Your task to perform on an android device: open app "Microsoft Authenticator" (install if not already installed) Image 0: 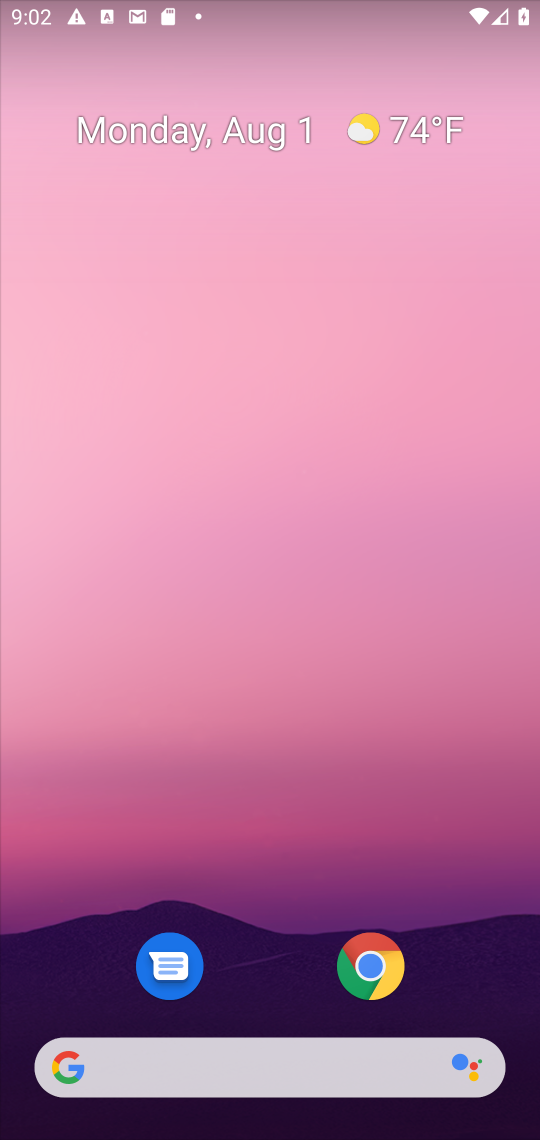
Step 0: drag from (514, 1049) to (508, 89)
Your task to perform on an android device: open app "Microsoft Authenticator" (install if not already installed) Image 1: 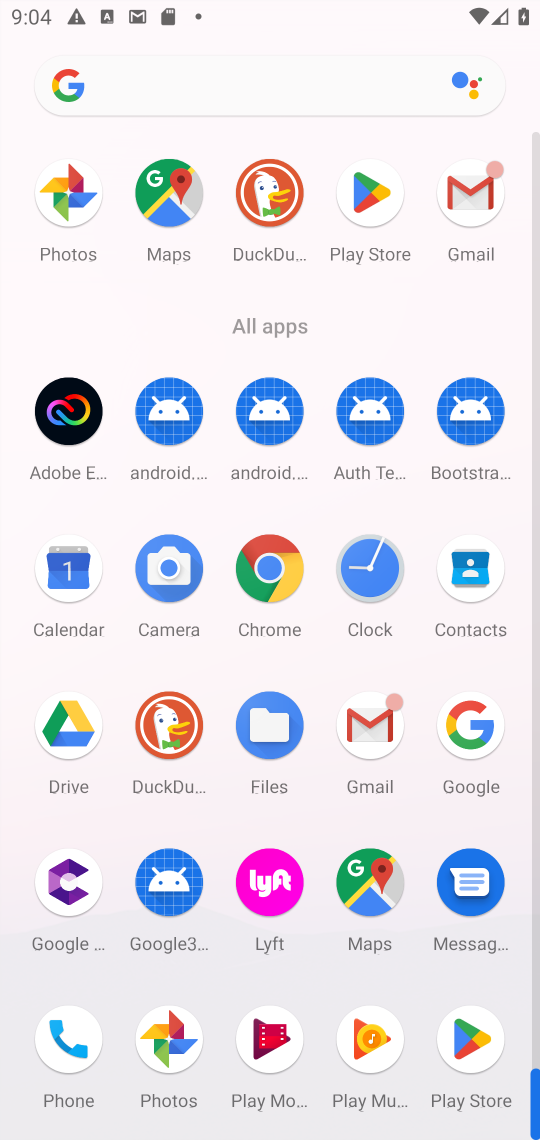
Step 1: click (466, 1047)
Your task to perform on an android device: open app "Microsoft Authenticator" (install if not already installed) Image 2: 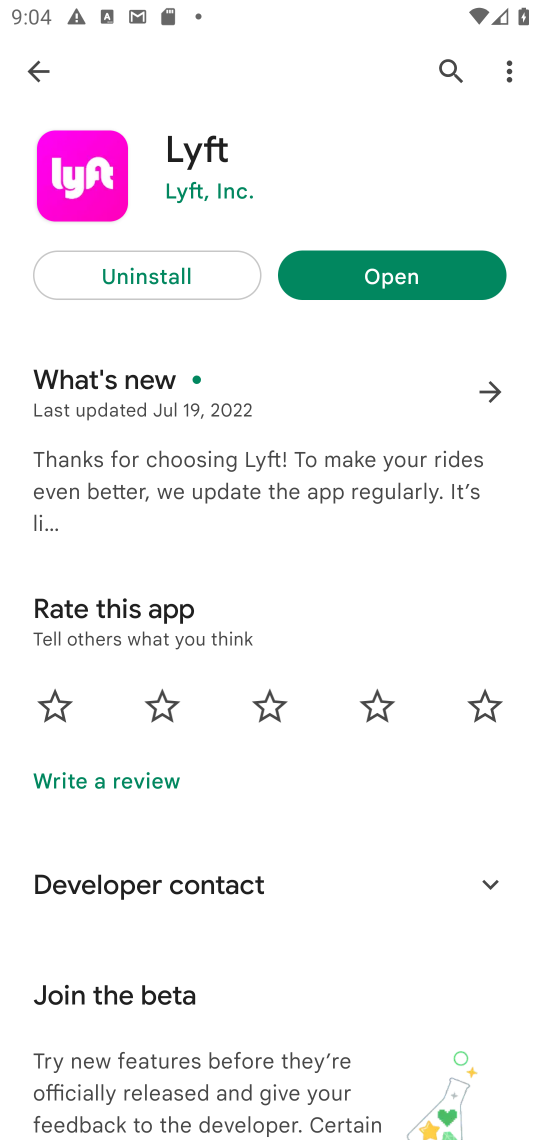
Step 2: click (444, 67)
Your task to perform on an android device: open app "Microsoft Authenticator" (install if not already installed) Image 3: 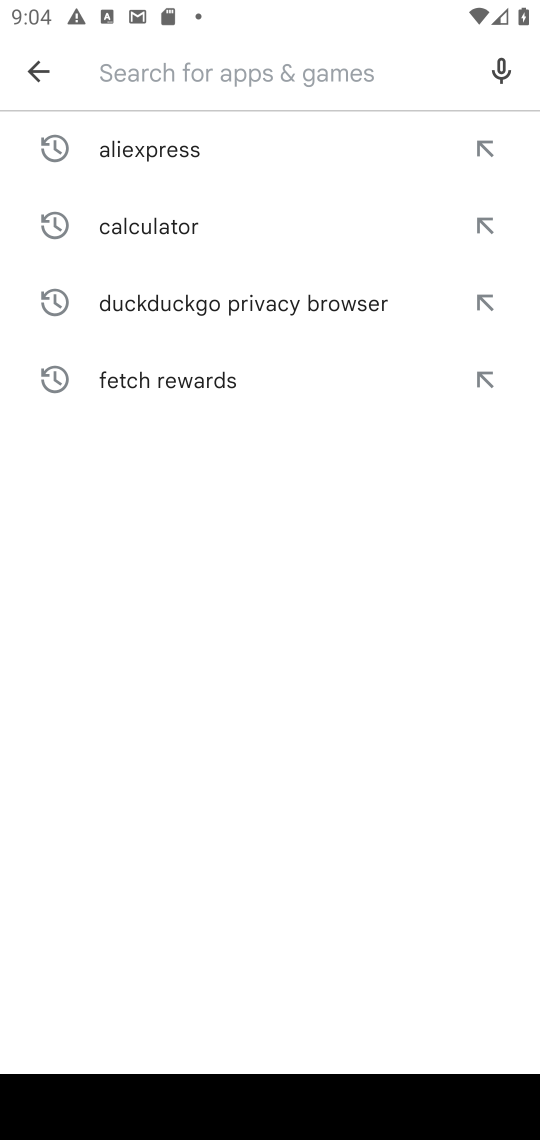
Step 3: click (309, 73)
Your task to perform on an android device: open app "Microsoft Authenticator" (install if not already installed) Image 4: 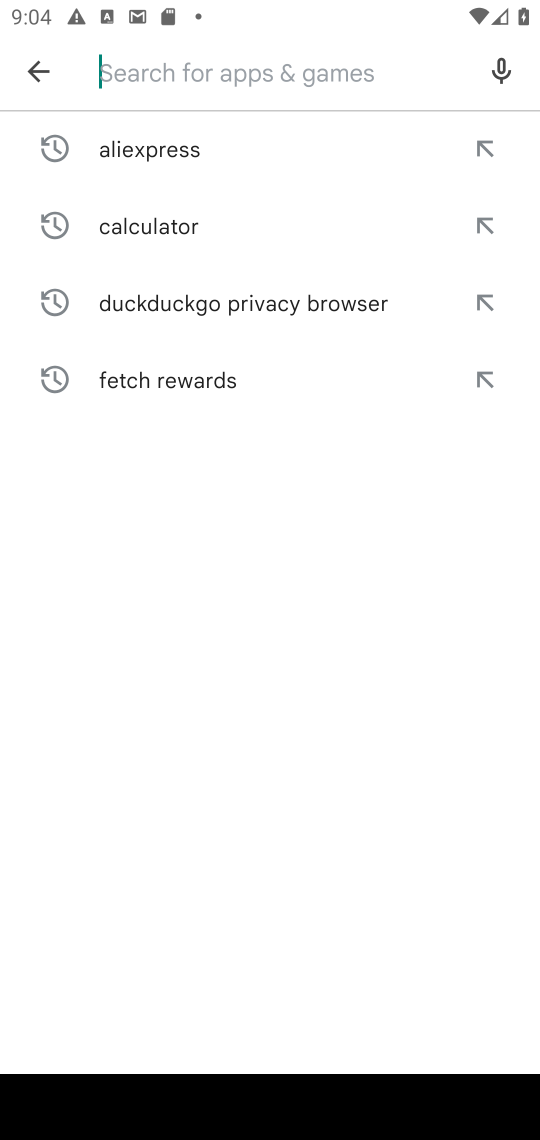
Step 4: type "Microsoft Authenticator"
Your task to perform on an android device: open app "Microsoft Authenticator" (install if not already installed) Image 5: 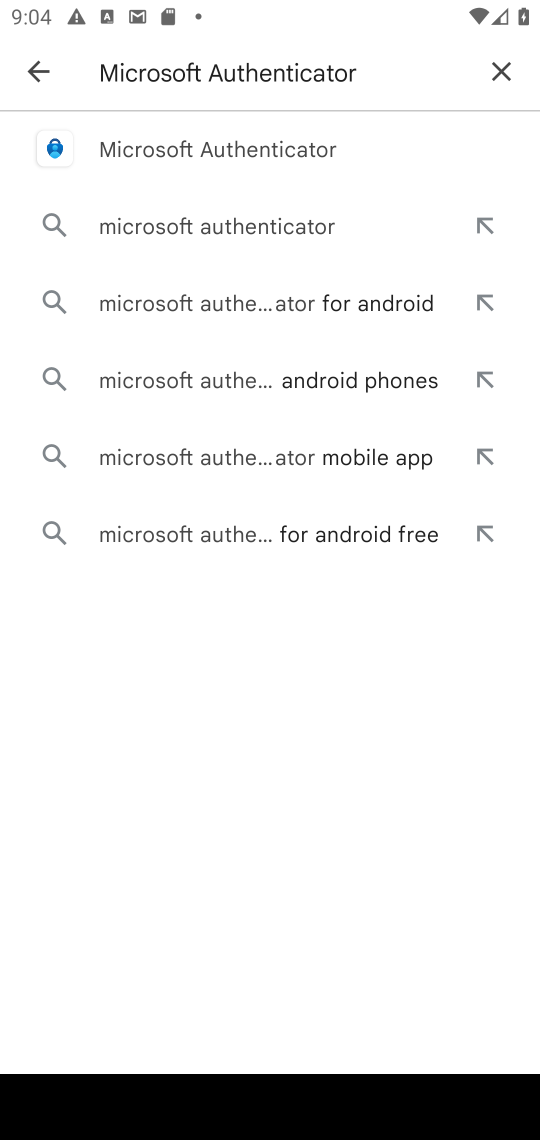
Step 5: click (194, 149)
Your task to perform on an android device: open app "Microsoft Authenticator" (install if not already installed) Image 6: 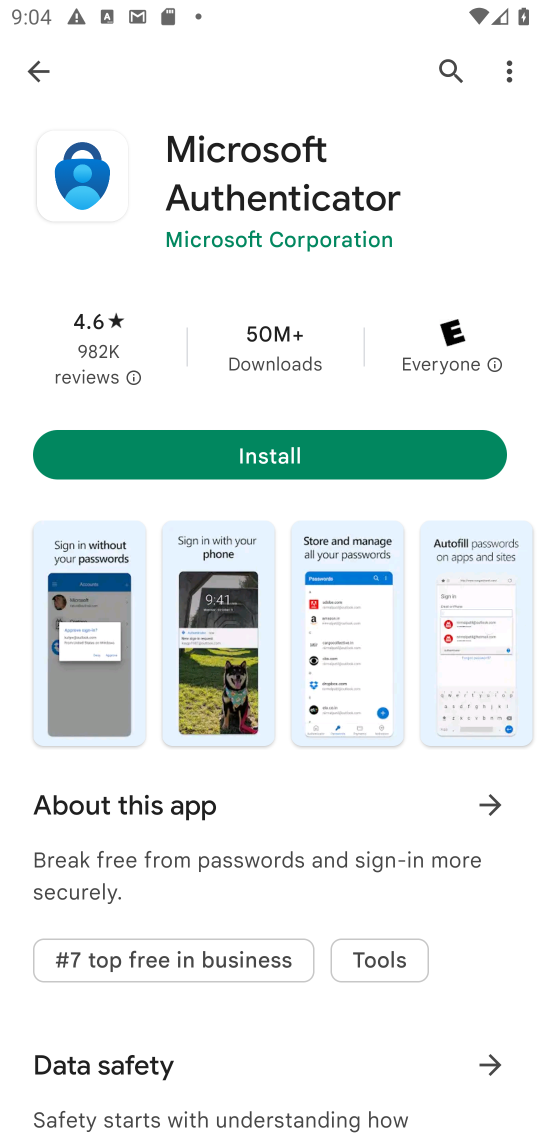
Step 6: click (246, 456)
Your task to perform on an android device: open app "Microsoft Authenticator" (install if not already installed) Image 7: 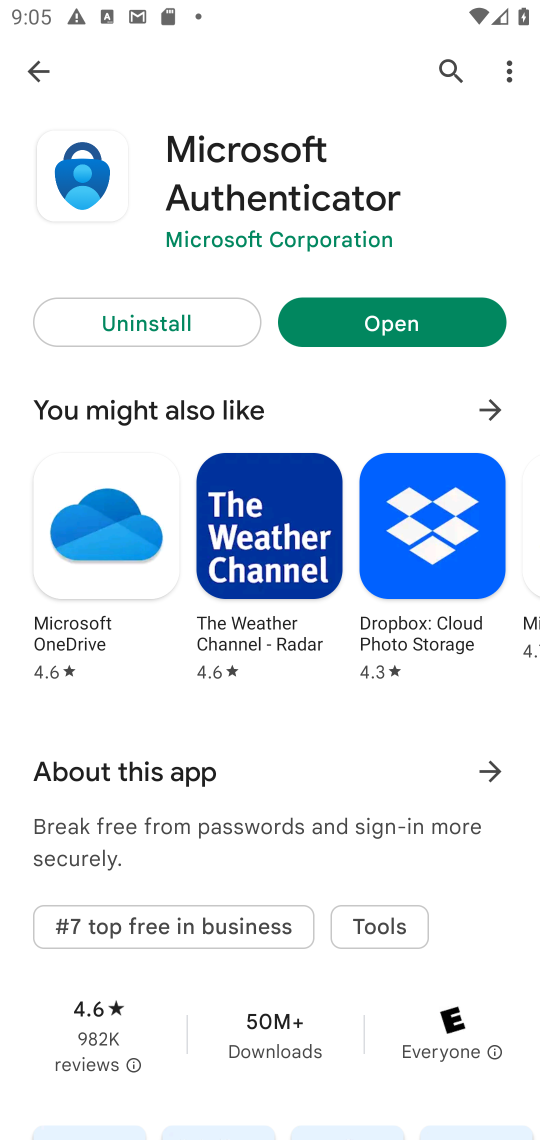
Step 7: click (390, 317)
Your task to perform on an android device: open app "Microsoft Authenticator" (install if not already installed) Image 8: 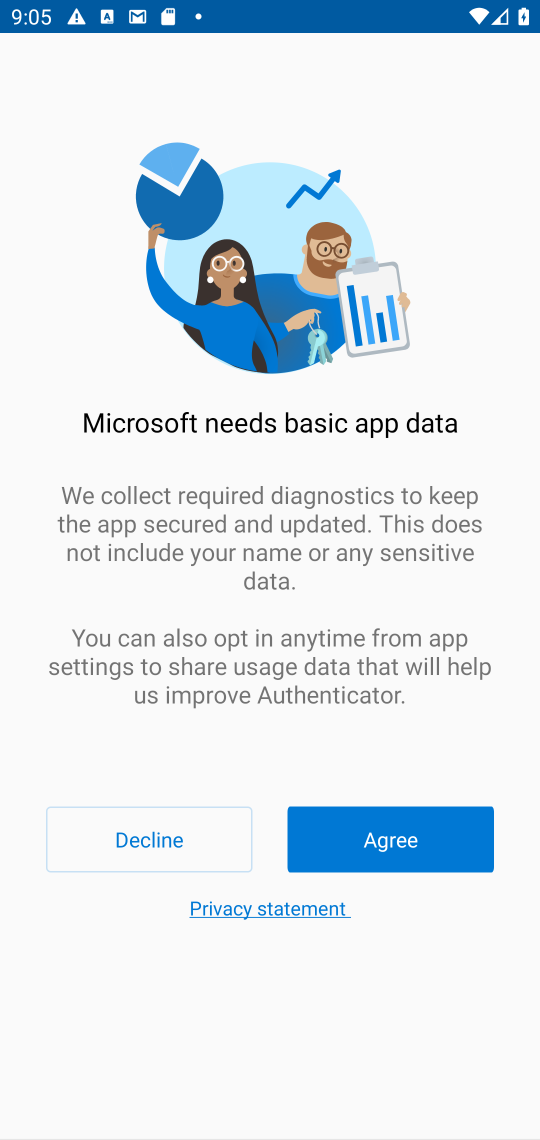
Step 8: task complete